Your task to perform on an android device: delete browsing data in the chrome app Image 0: 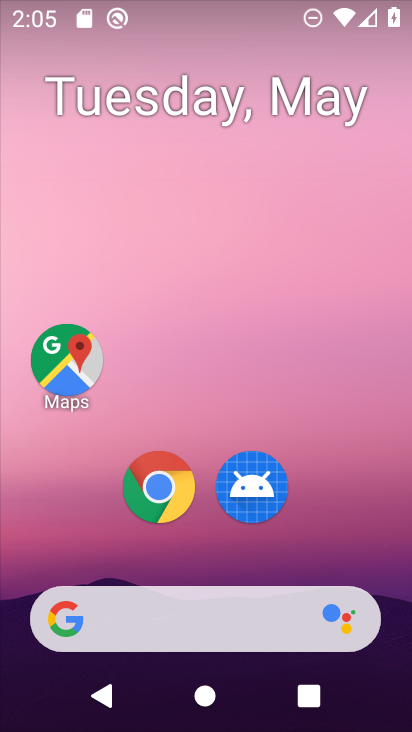
Step 0: click (169, 496)
Your task to perform on an android device: delete browsing data in the chrome app Image 1: 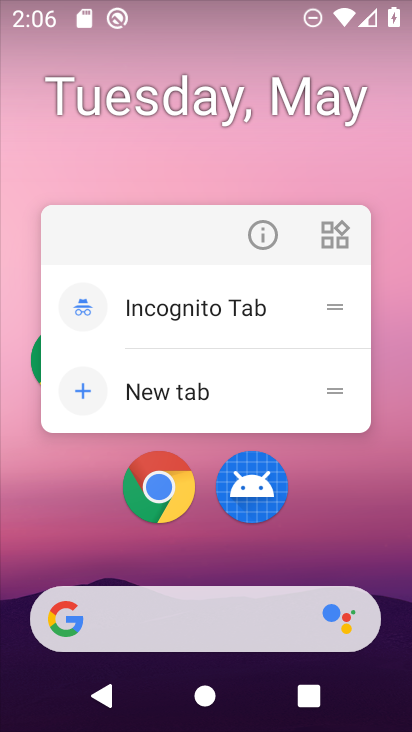
Step 1: click (151, 490)
Your task to perform on an android device: delete browsing data in the chrome app Image 2: 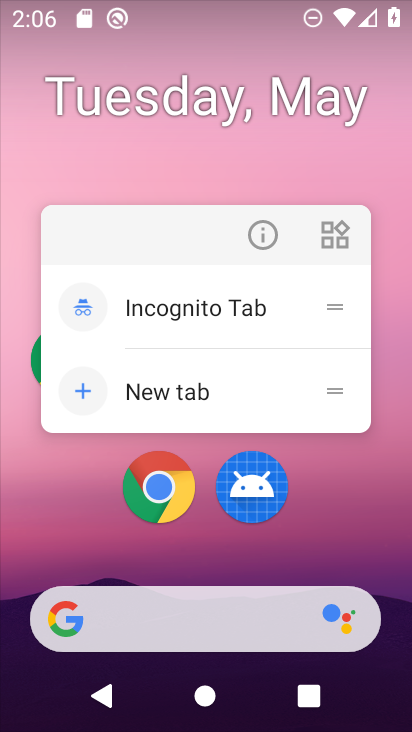
Step 2: click (160, 497)
Your task to perform on an android device: delete browsing data in the chrome app Image 3: 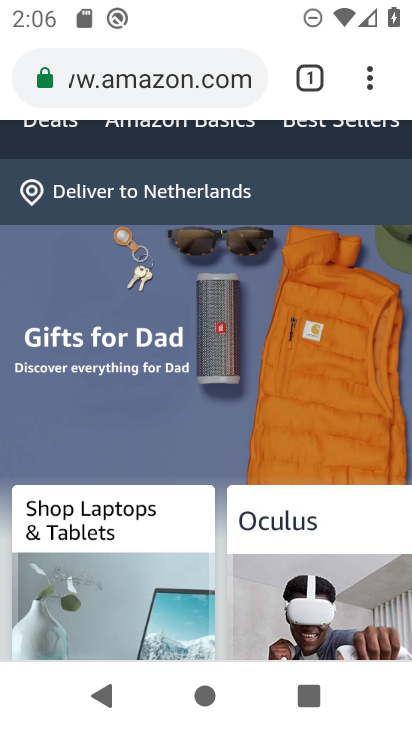
Step 3: click (369, 78)
Your task to perform on an android device: delete browsing data in the chrome app Image 4: 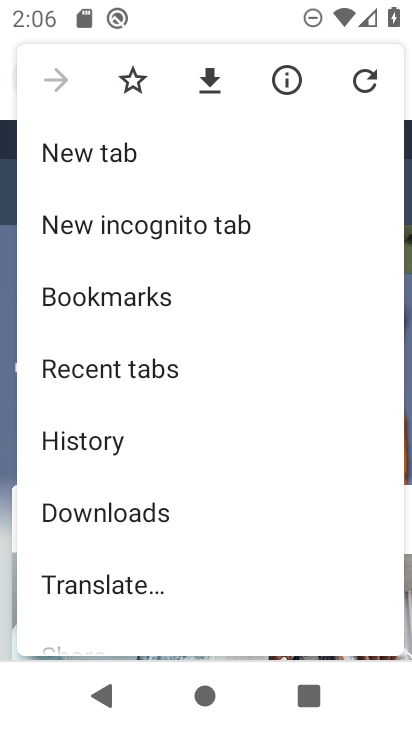
Step 4: click (97, 453)
Your task to perform on an android device: delete browsing data in the chrome app Image 5: 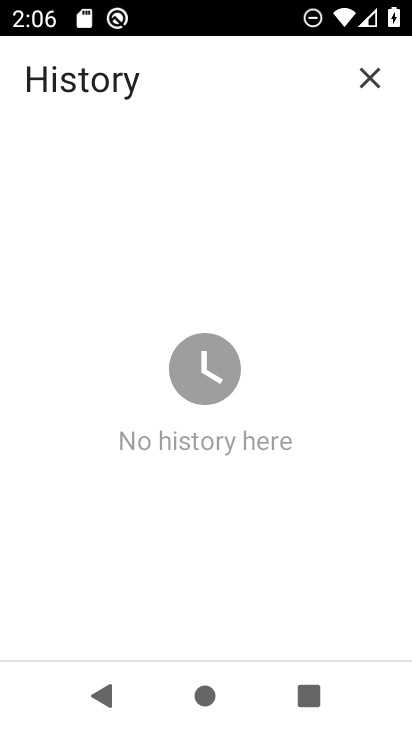
Step 5: task complete